Your task to perform on an android device: toggle location history Image 0: 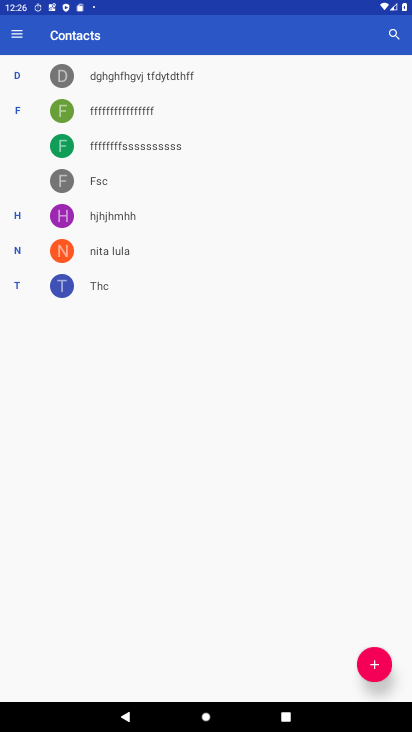
Step 0: press home button
Your task to perform on an android device: toggle location history Image 1: 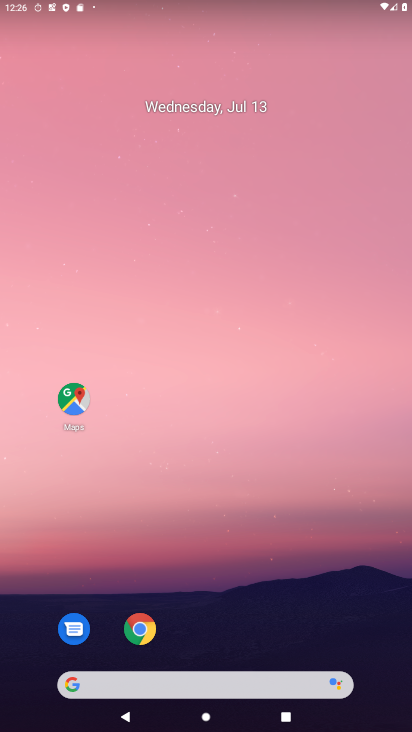
Step 1: drag from (214, 630) to (168, 254)
Your task to perform on an android device: toggle location history Image 2: 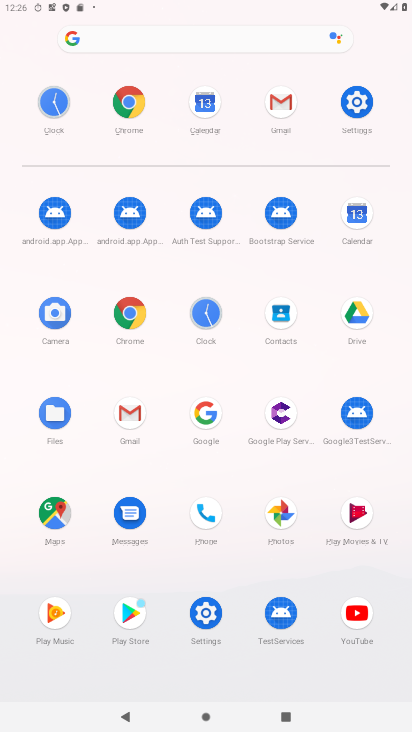
Step 2: click (353, 107)
Your task to perform on an android device: toggle location history Image 3: 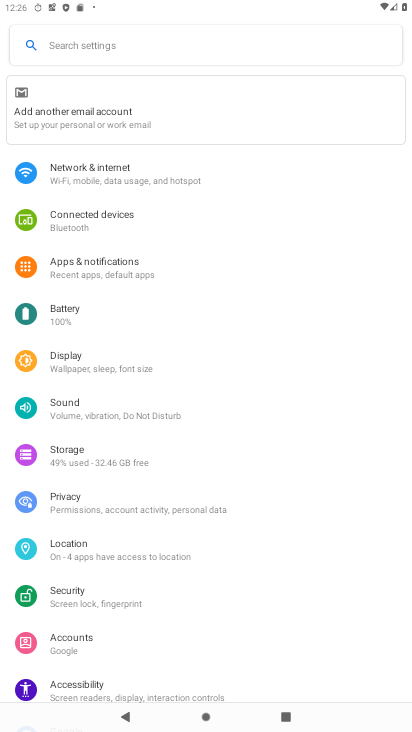
Step 3: click (123, 557)
Your task to perform on an android device: toggle location history Image 4: 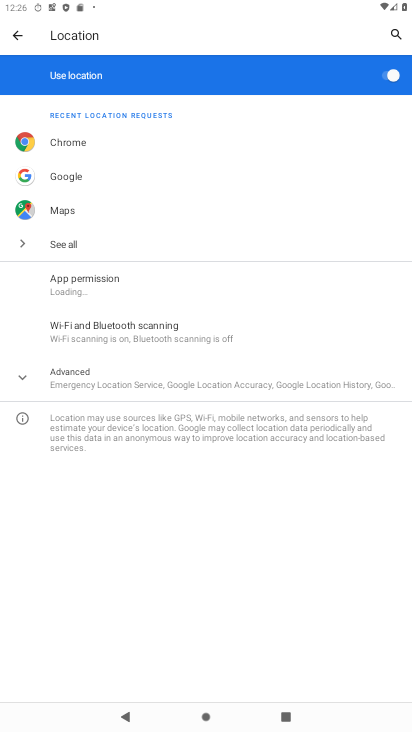
Step 4: click (155, 382)
Your task to perform on an android device: toggle location history Image 5: 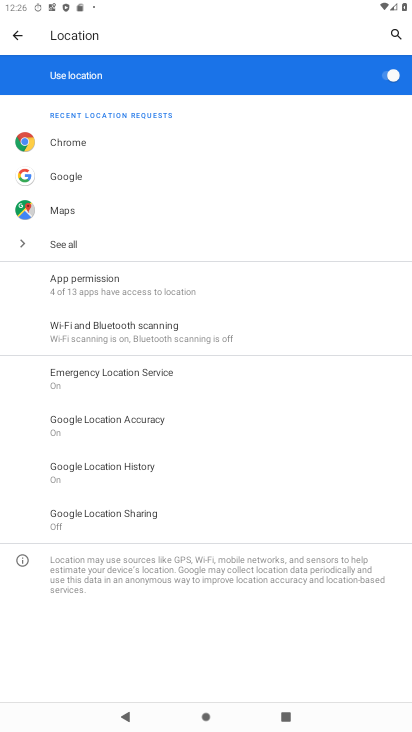
Step 5: click (138, 473)
Your task to perform on an android device: toggle location history Image 6: 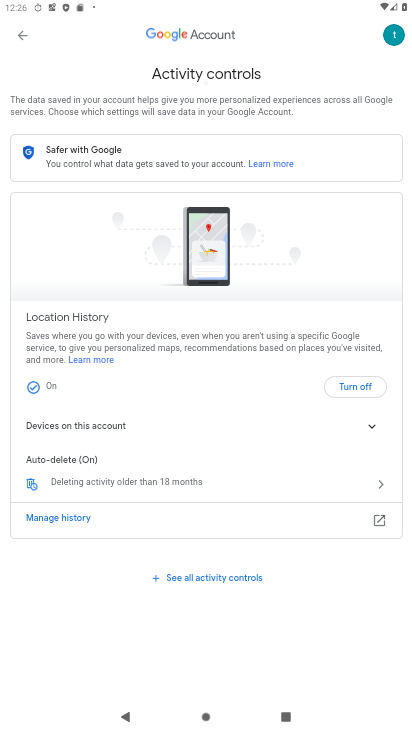
Step 6: click (354, 394)
Your task to perform on an android device: toggle location history Image 7: 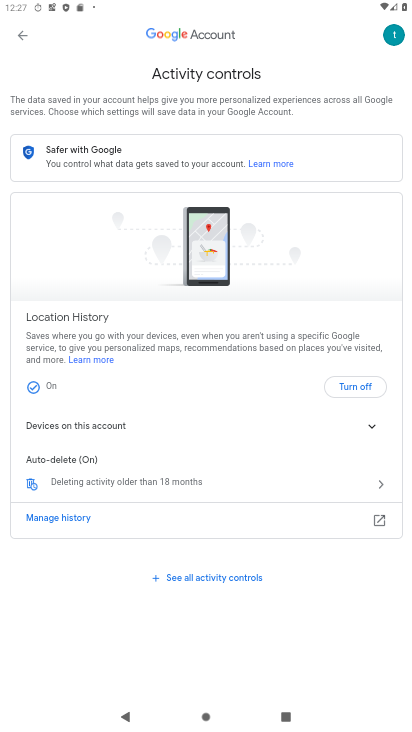
Step 7: click (371, 384)
Your task to perform on an android device: toggle location history Image 8: 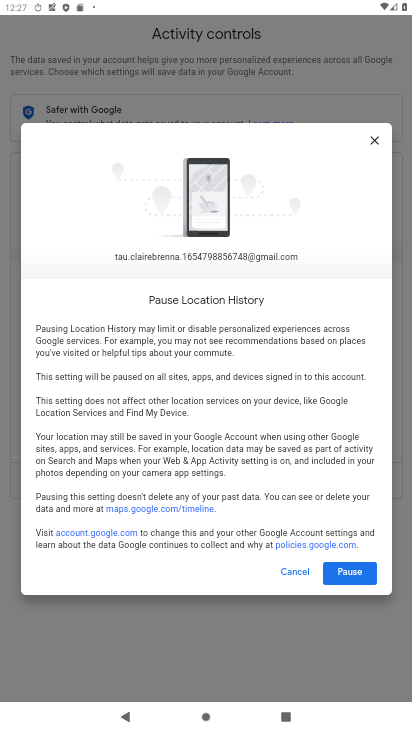
Step 8: click (332, 570)
Your task to perform on an android device: toggle location history Image 9: 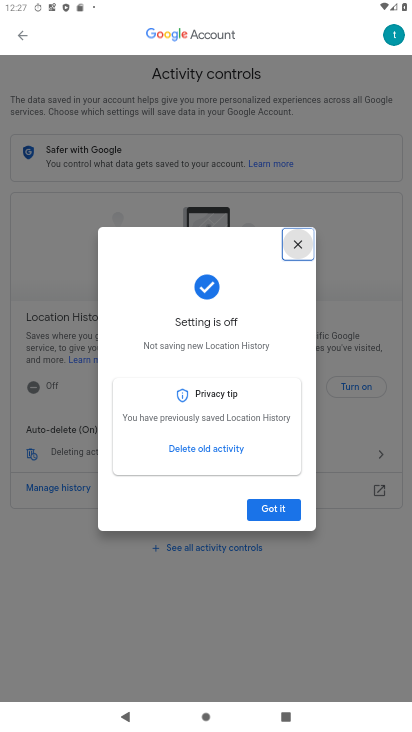
Step 9: click (276, 510)
Your task to perform on an android device: toggle location history Image 10: 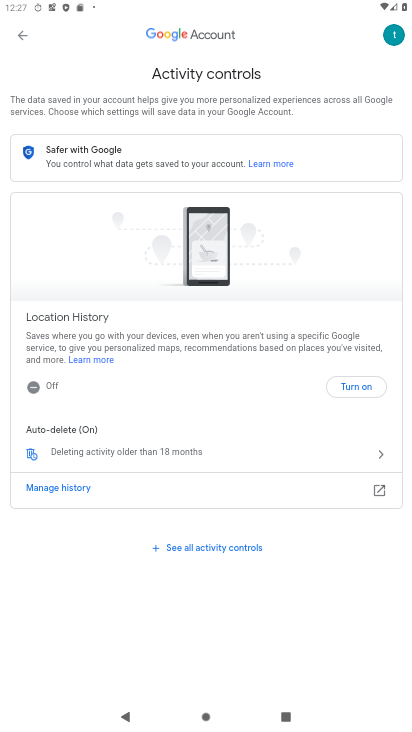
Step 10: task complete